Your task to perform on an android device: toggle wifi Image 0: 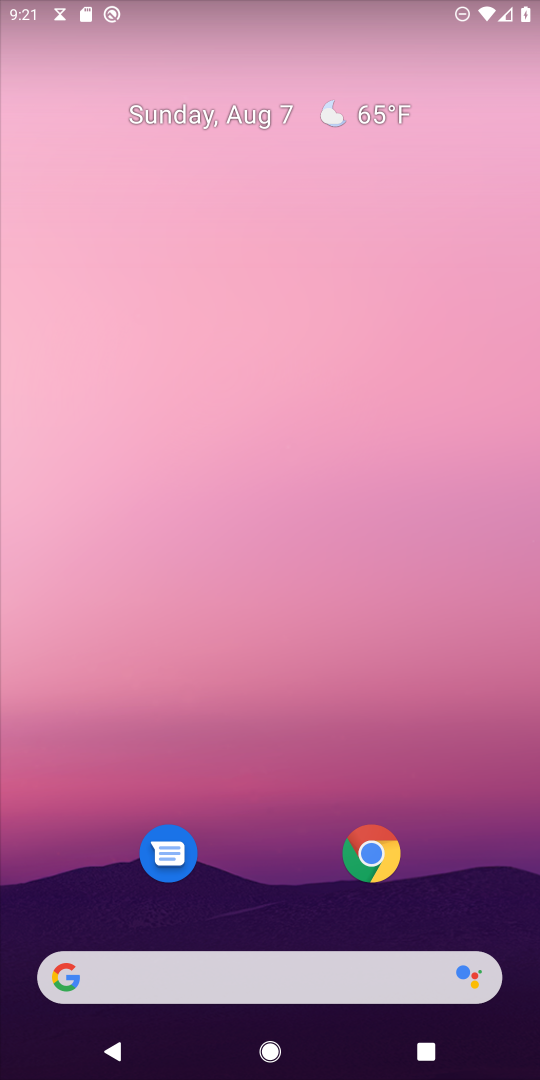
Step 0: drag from (282, 925) to (276, 135)
Your task to perform on an android device: toggle wifi Image 1: 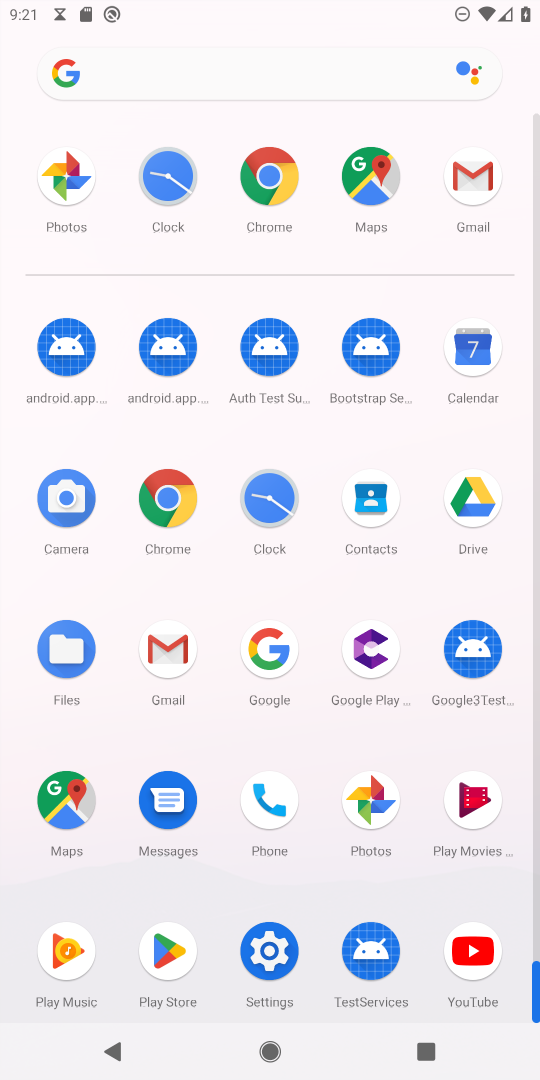
Step 1: click (240, 945)
Your task to perform on an android device: toggle wifi Image 2: 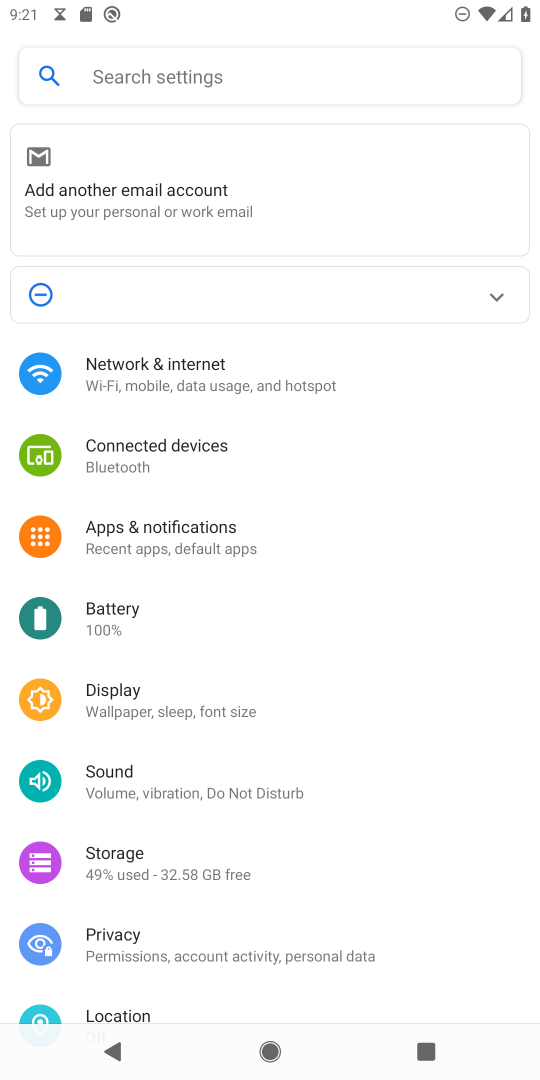
Step 2: click (181, 351)
Your task to perform on an android device: toggle wifi Image 3: 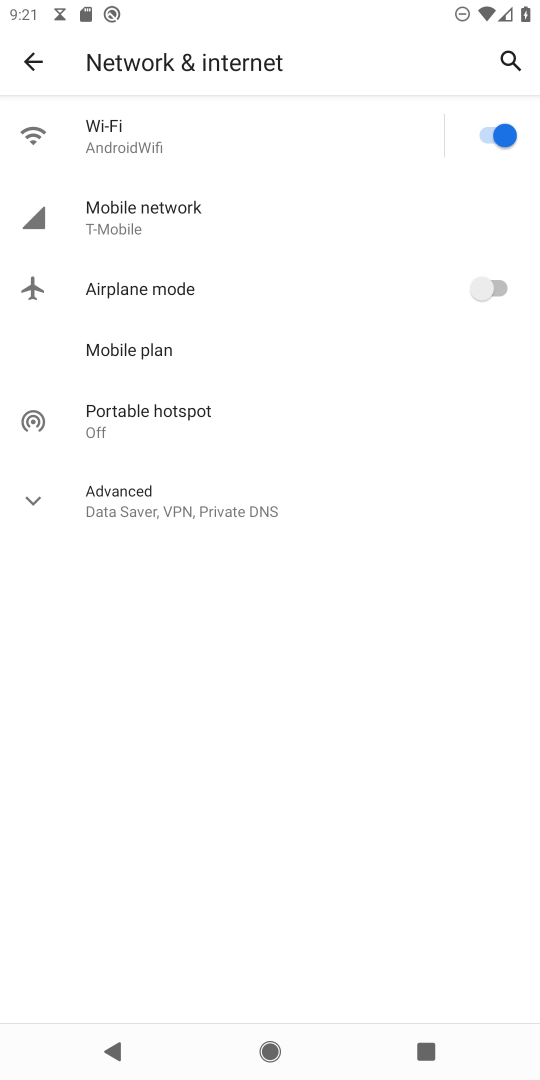
Step 3: click (343, 128)
Your task to perform on an android device: toggle wifi Image 4: 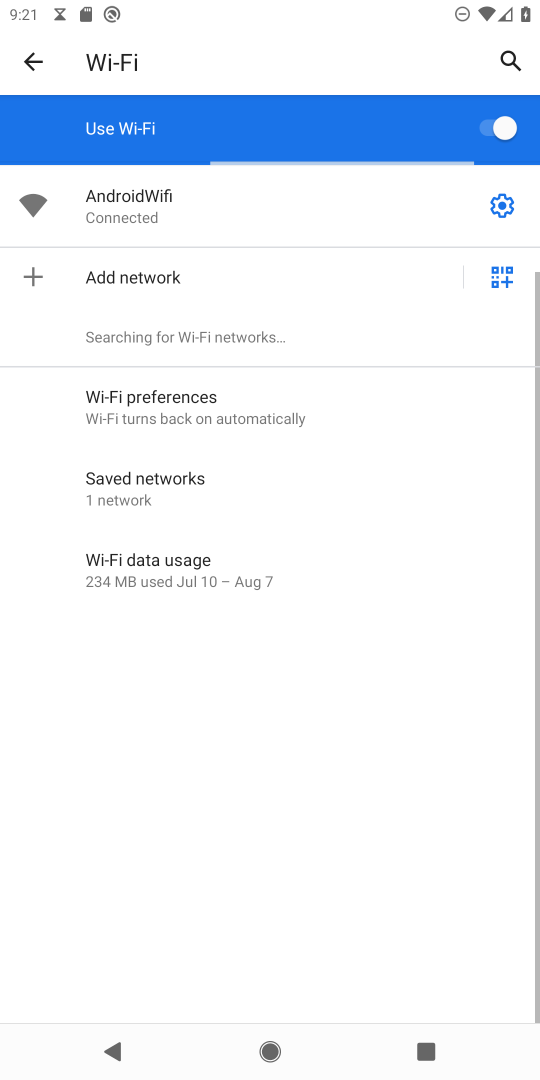
Step 4: click (501, 123)
Your task to perform on an android device: toggle wifi Image 5: 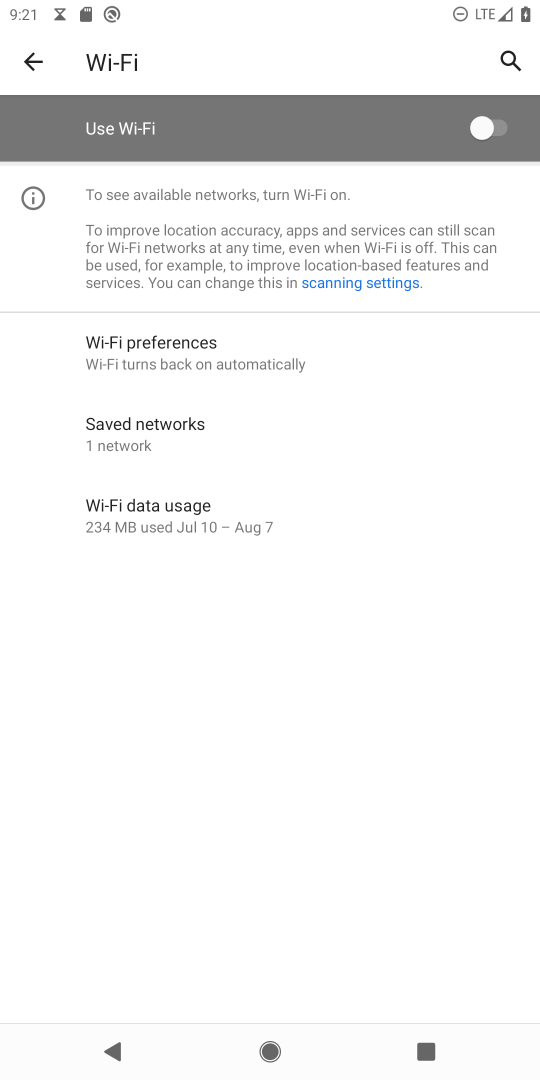
Step 5: task complete